Your task to perform on an android device: Go to calendar. Show me events next week Image 0: 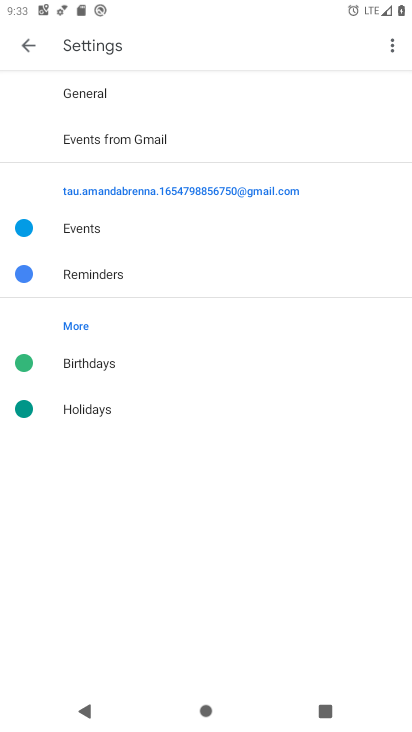
Step 0: press home button
Your task to perform on an android device: Go to calendar. Show me events next week Image 1: 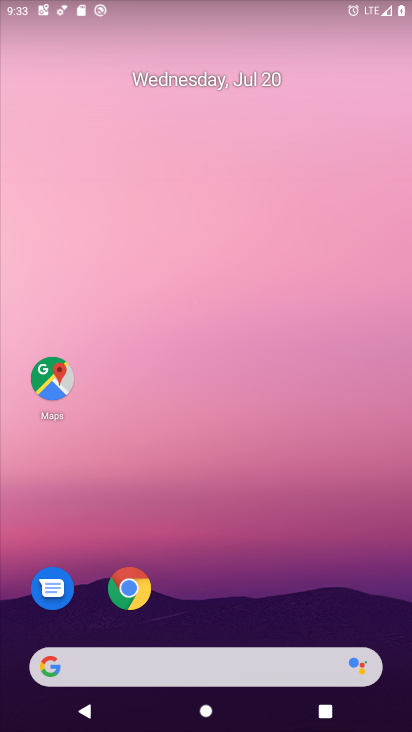
Step 1: drag from (219, 623) to (211, 109)
Your task to perform on an android device: Go to calendar. Show me events next week Image 2: 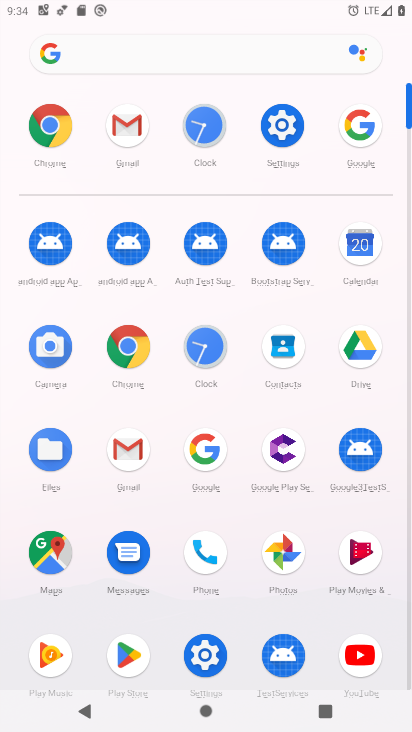
Step 2: click (357, 243)
Your task to perform on an android device: Go to calendar. Show me events next week Image 3: 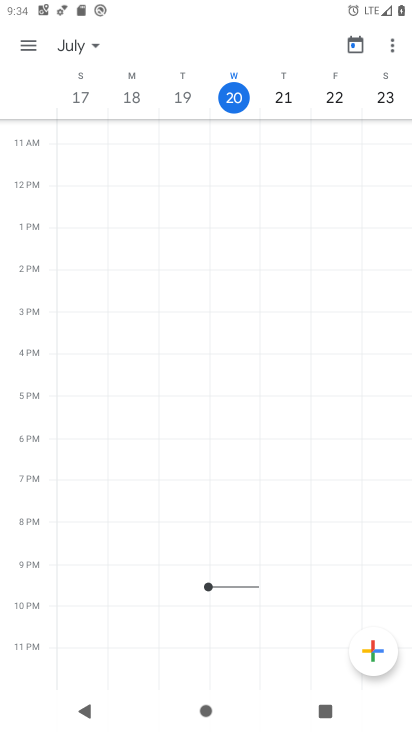
Step 3: drag from (391, 91) to (27, 105)
Your task to perform on an android device: Go to calendar. Show me events next week Image 4: 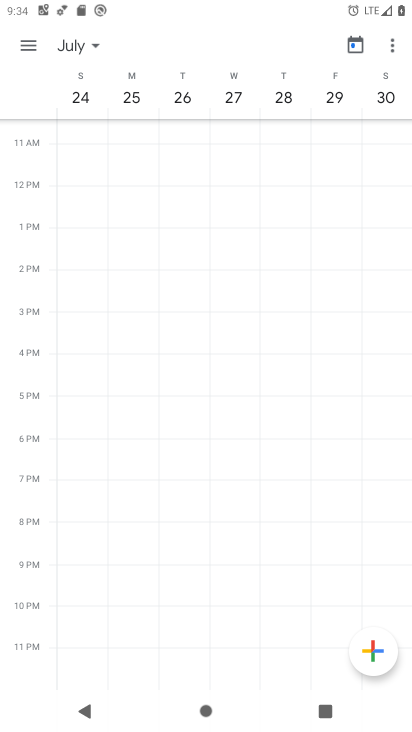
Step 4: click (77, 93)
Your task to perform on an android device: Go to calendar. Show me events next week Image 5: 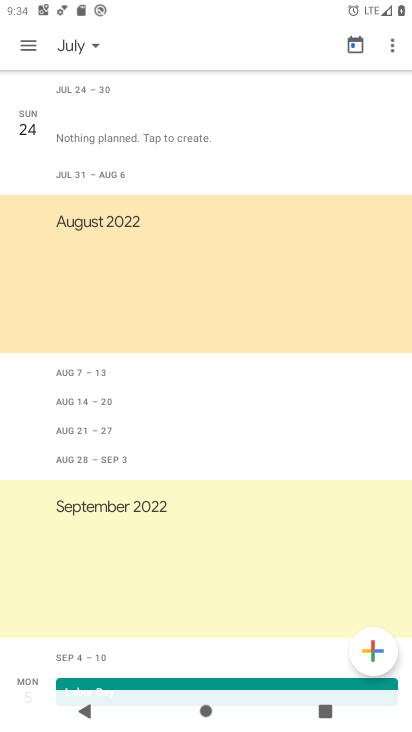
Step 5: task complete